Your task to perform on an android device: Open my contact list Image 0: 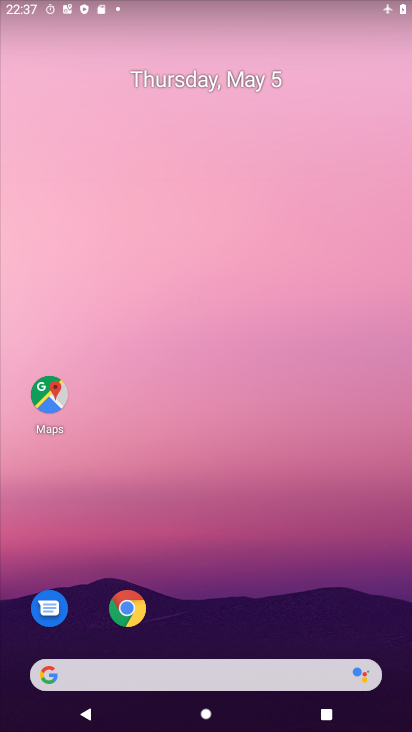
Step 0: drag from (325, 703) to (405, 44)
Your task to perform on an android device: Open my contact list Image 1: 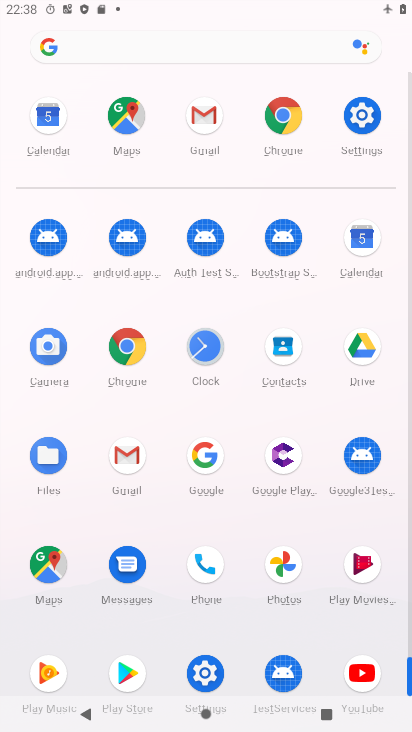
Step 1: click (289, 340)
Your task to perform on an android device: Open my contact list Image 2: 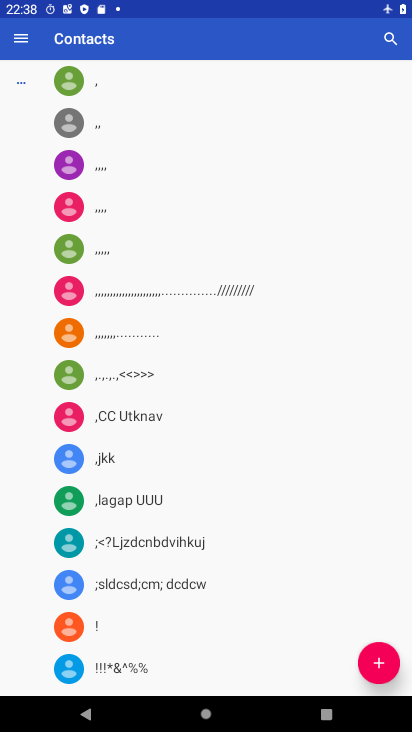
Step 2: task complete